Your task to perform on an android device: When is my next appointment? Image 0: 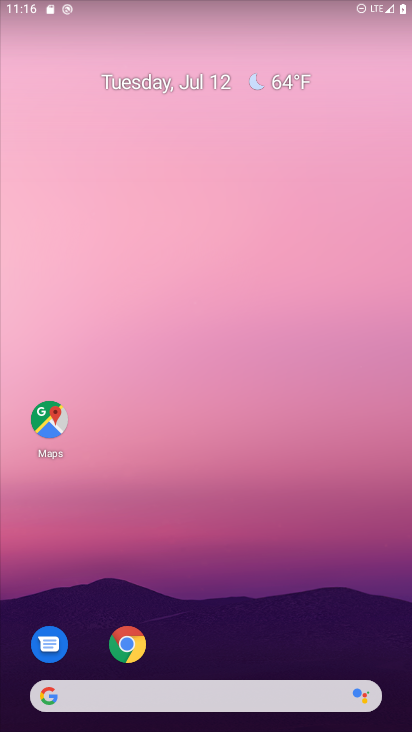
Step 0: drag from (215, 655) to (219, 7)
Your task to perform on an android device: When is my next appointment? Image 1: 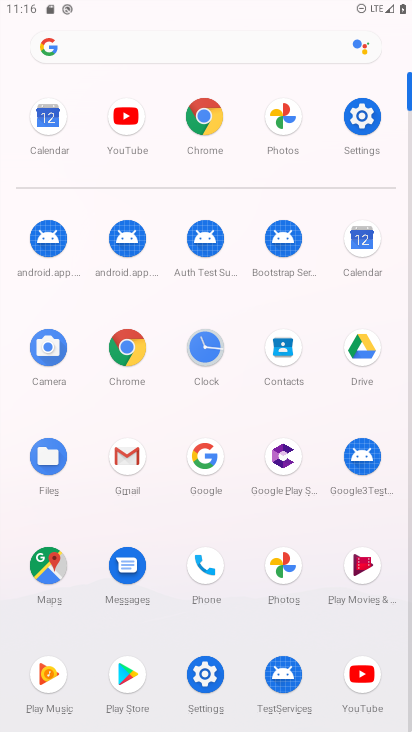
Step 1: click (346, 120)
Your task to perform on an android device: When is my next appointment? Image 2: 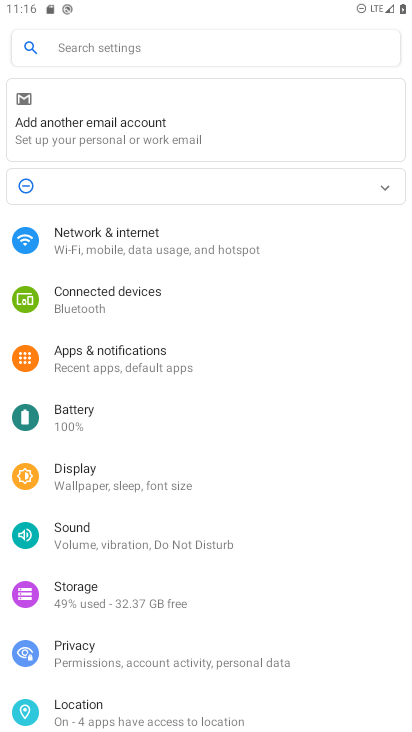
Step 2: press home button
Your task to perform on an android device: When is my next appointment? Image 3: 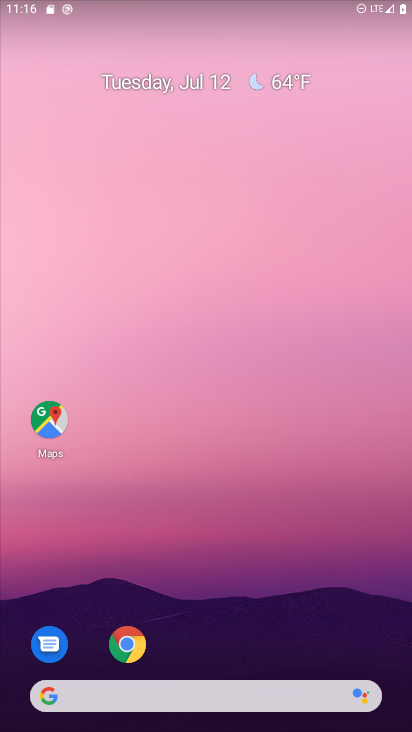
Step 3: drag from (252, 653) to (271, 150)
Your task to perform on an android device: When is my next appointment? Image 4: 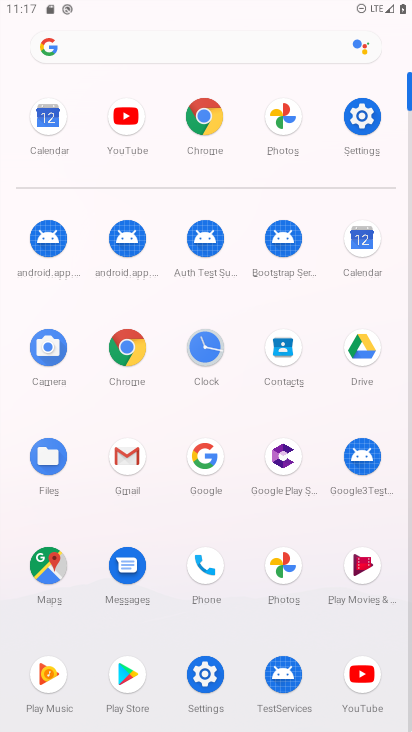
Step 4: click (358, 247)
Your task to perform on an android device: When is my next appointment? Image 5: 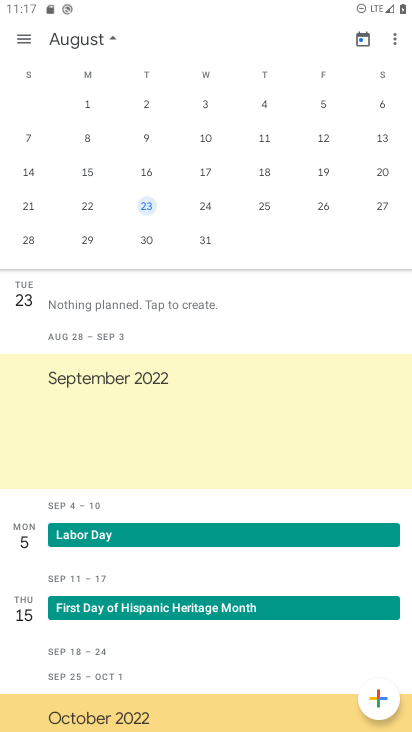
Step 5: task complete